Your task to perform on an android device: delete location history Image 0: 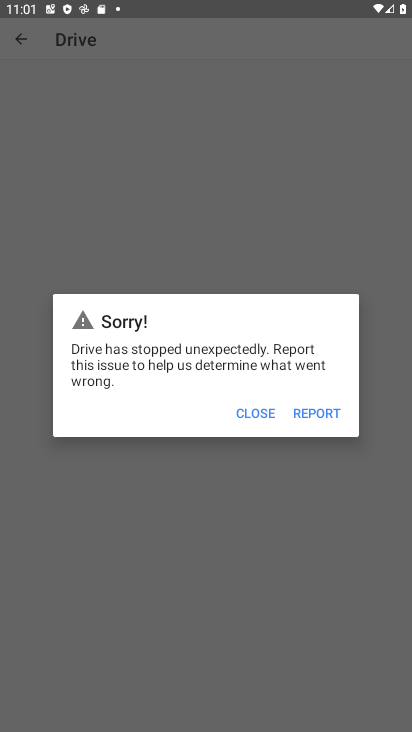
Step 0: press home button
Your task to perform on an android device: delete location history Image 1: 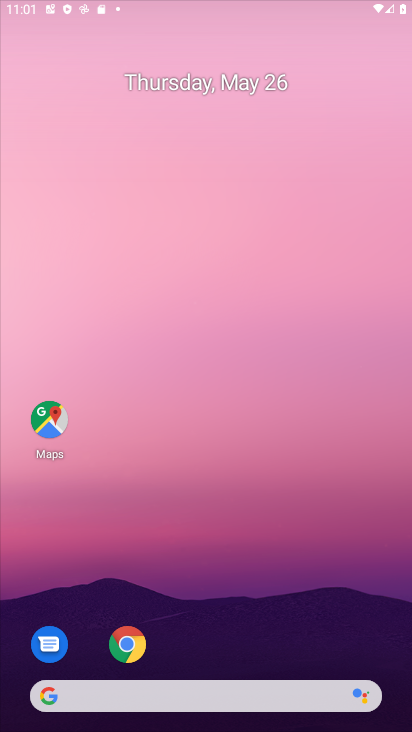
Step 1: drag from (372, 657) to (245, 3)
Your task to perform on an android device: delete location history Image 2: 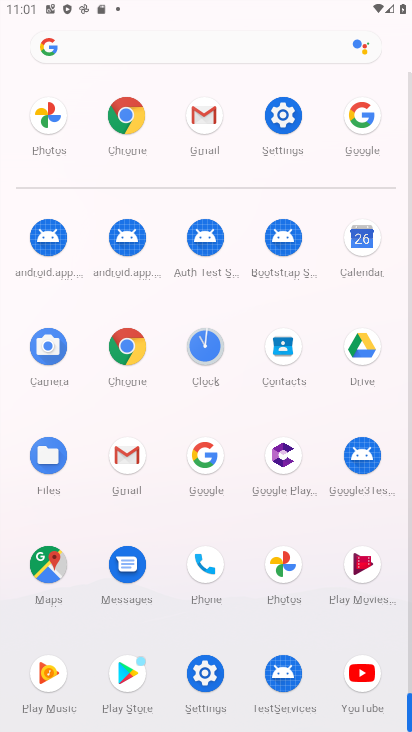
Step 2: click (192, 682)
Your task to perform on an android device: delete location history Image 3: 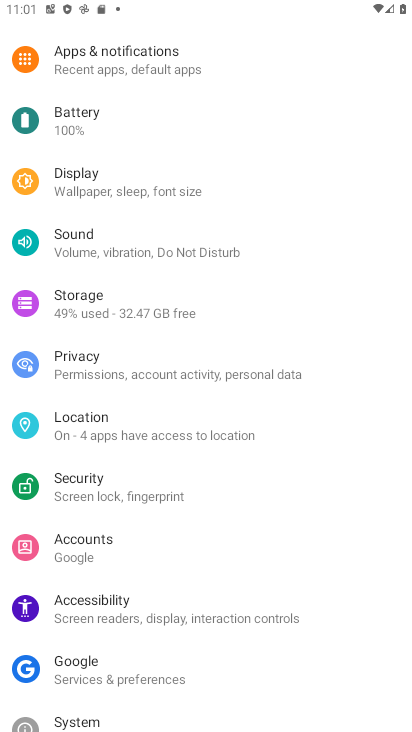
Step 3: click (114, 414)
Your task to perform on an android device: delete location history Image 4: 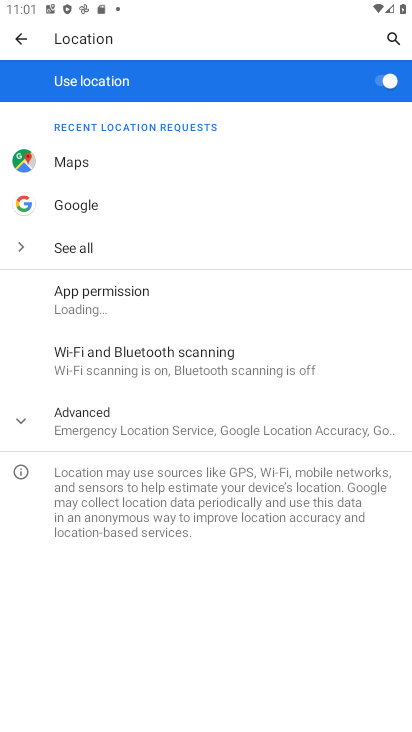
Step 4: click (124, 422)
Your task to perform on an android device: delete location history Image 5: 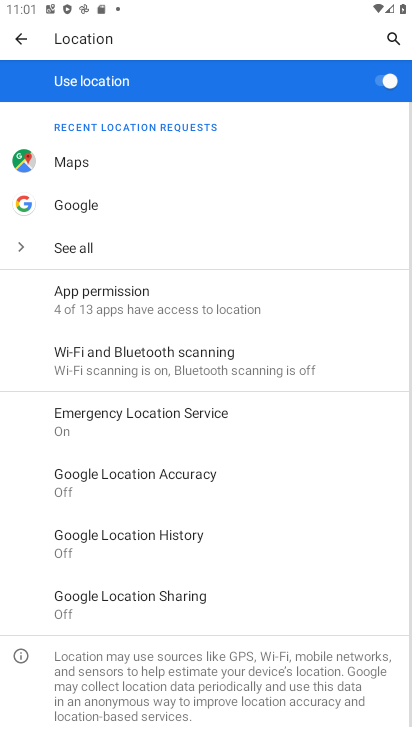
Step 5: click (155, 528)
Your task to perform on an android device: delete location history Image 6: 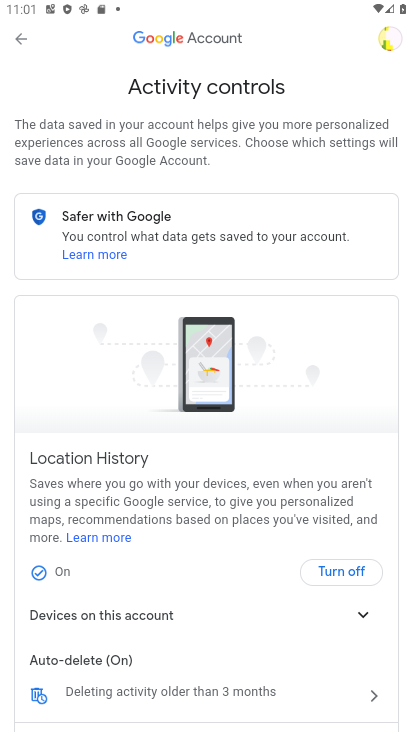
Step 6: click (178, 690)
Your task to perform on an android device: delete location history Image 7: 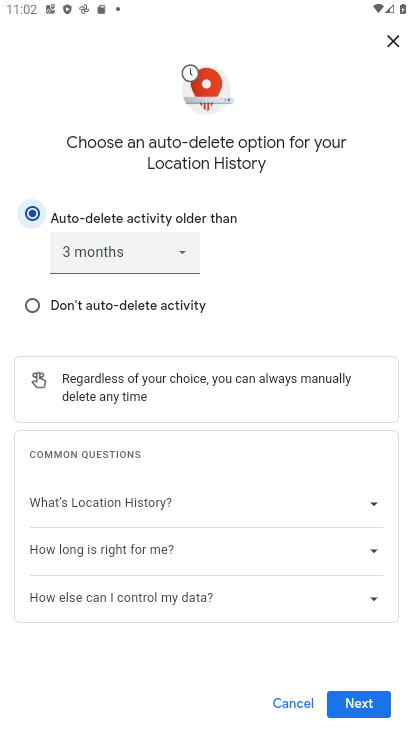
Step 7: click (337, 715)
Your task to perform on an android device: delete location history Image 8: 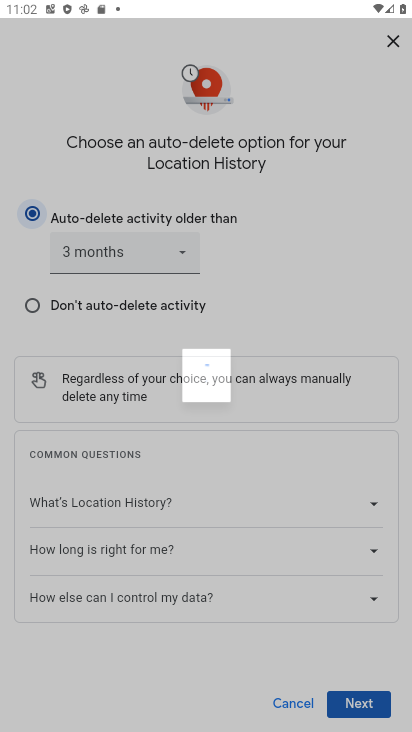
Step 8: click (360, 706)
Your task to perform on an android device: delete location history Image 9: 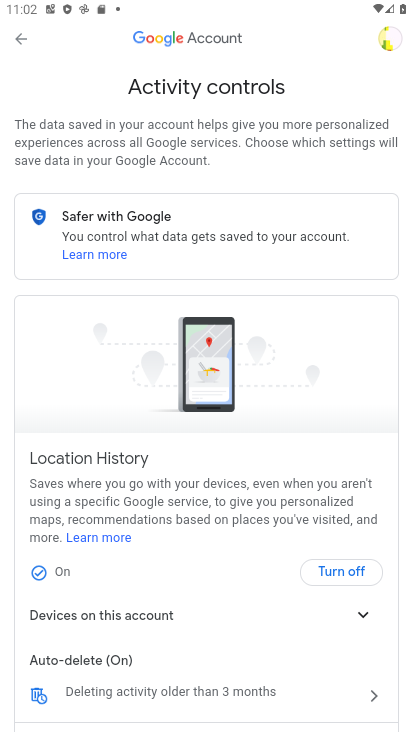
Step 9: task complete